Your task to perform on an android device: Empty the shopping cart on ebay.com. Image 0: 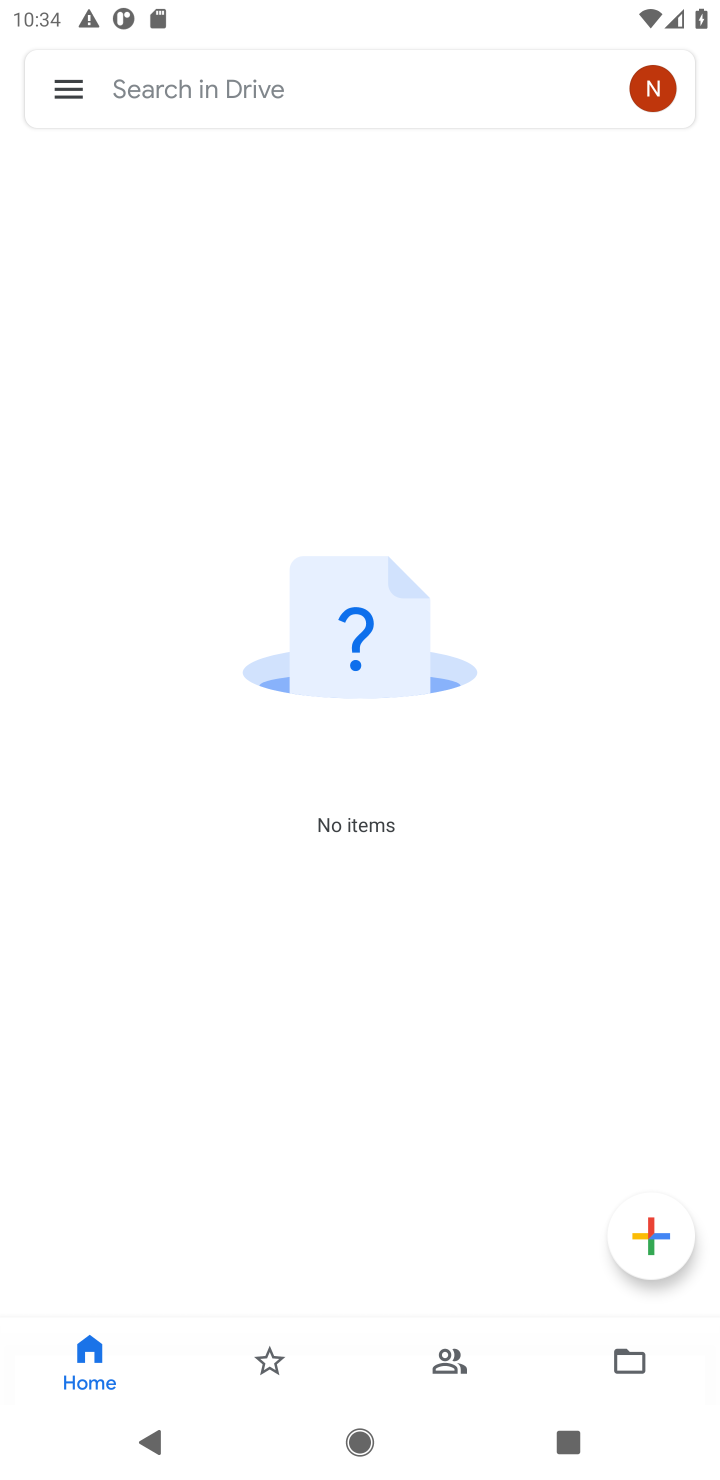
Step 0: press home button
Your task to perform on an android device: Empty the shopping cart on ebay.com. Image 1: 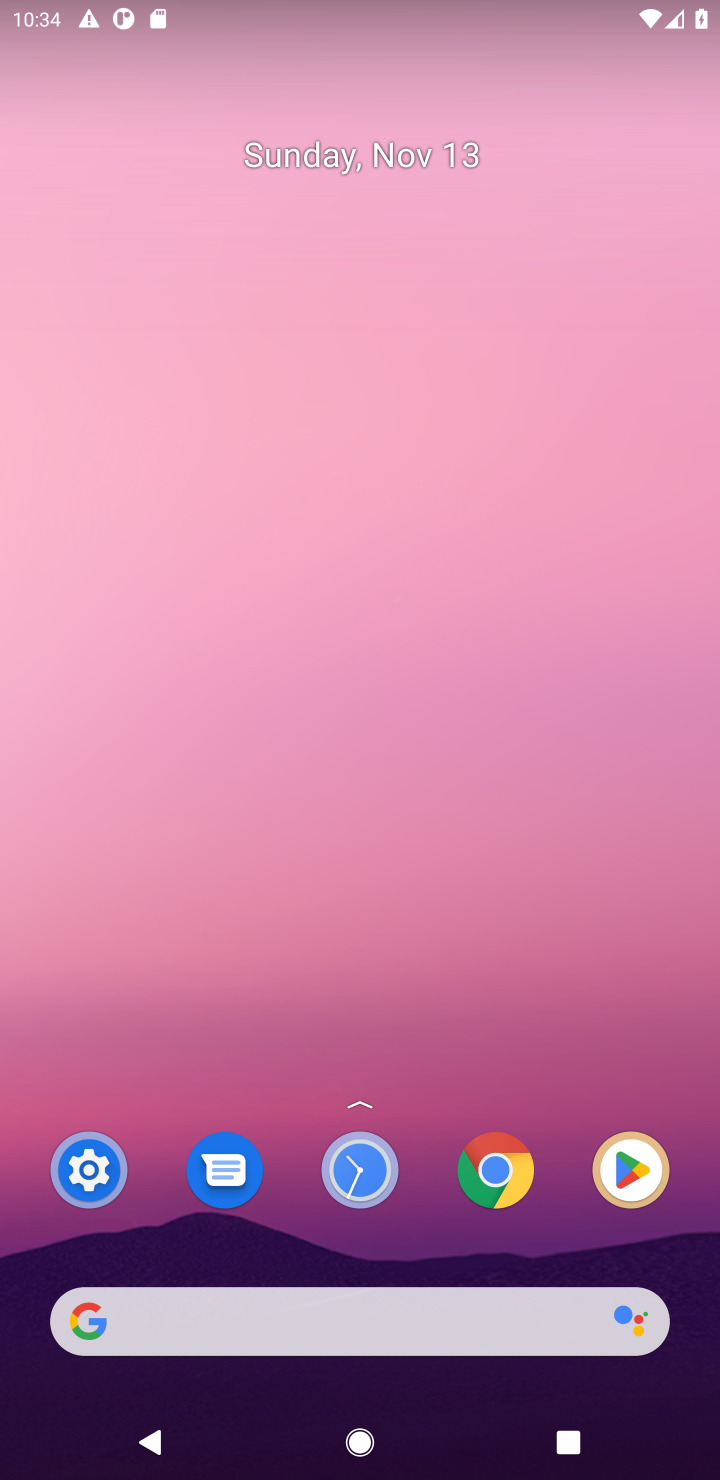
Step 1: click (404, 1322)
Your task to perform on an android device: Empty the shopping cart on ebay.com. Image 2: 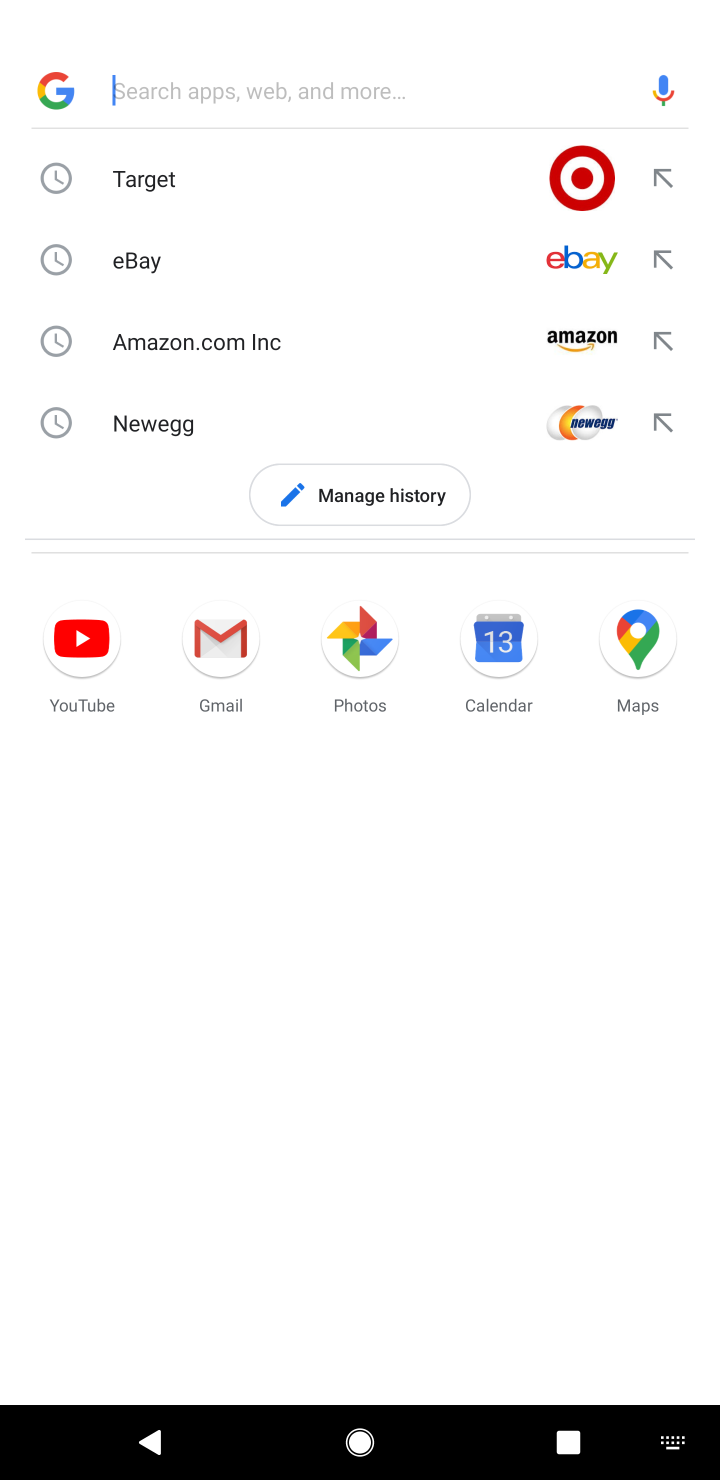
Step 2: type "ebay.com"
Your task to perform on an android device: Empty the shopping cart on ebay.com. Image 3: 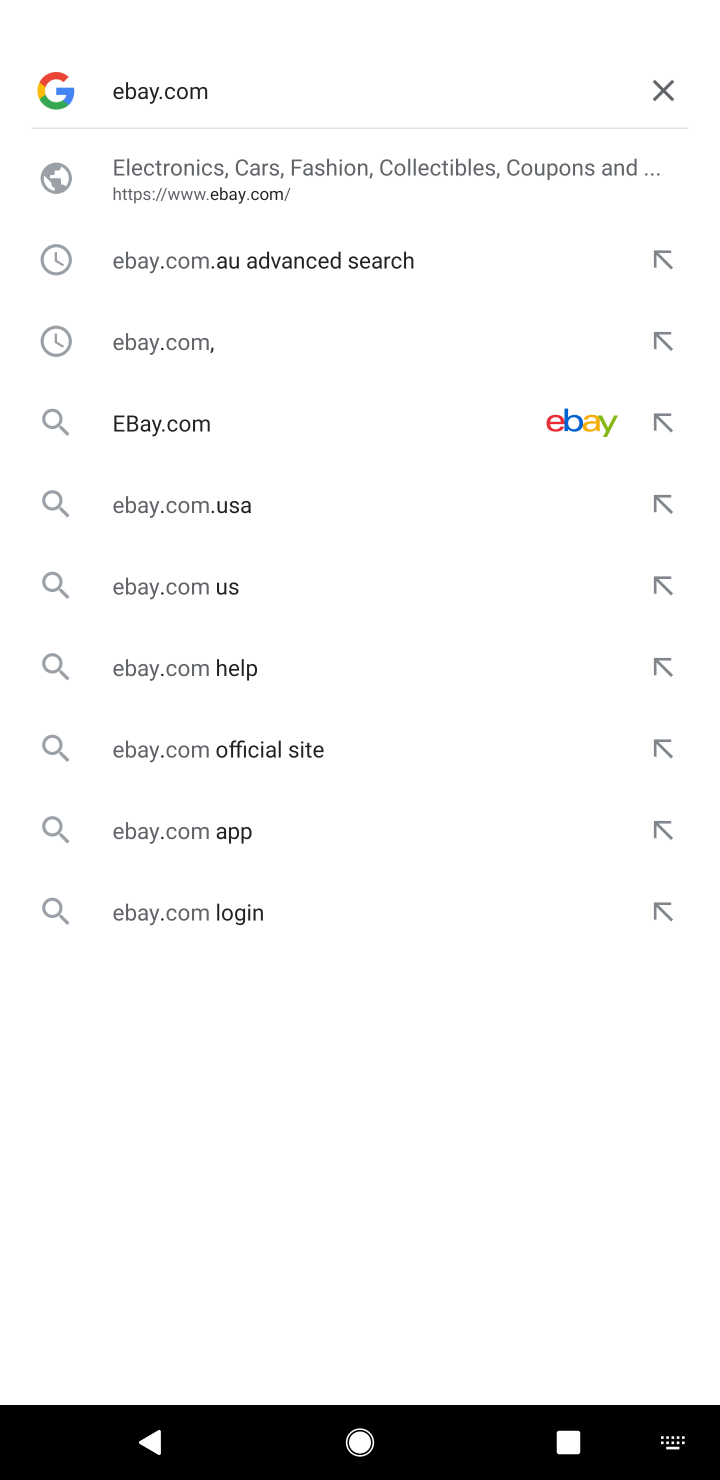
Step 3: click (217, 419)
Your task to perform on an android device: Empty the shopping cart on ebay.com. Image 4: 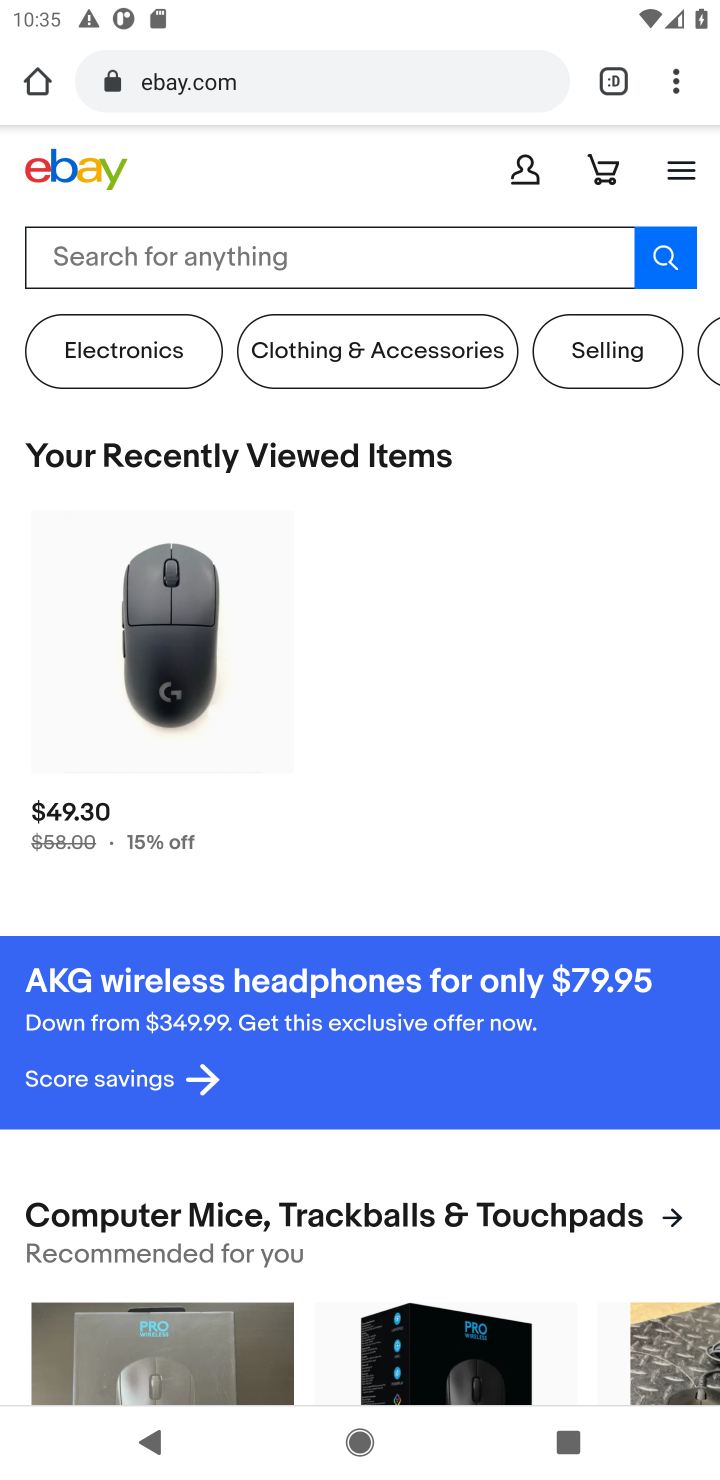
Step 4: task complete